Your task to perform on an android device: Do I have any events today? Image 0: 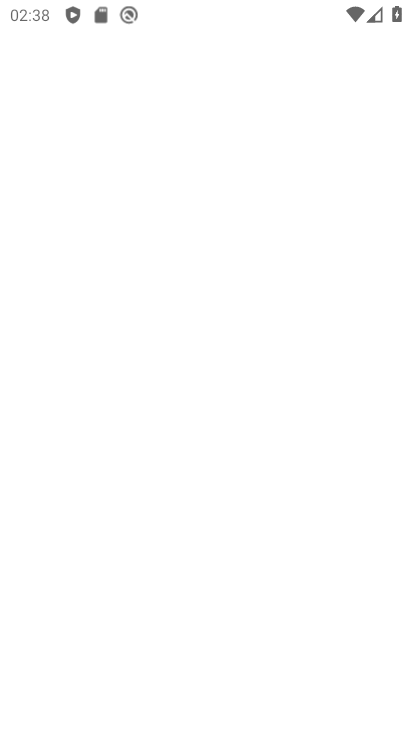
Step 0: press home button
Your task to perform on an android device: Do I have any events today? Image 1: 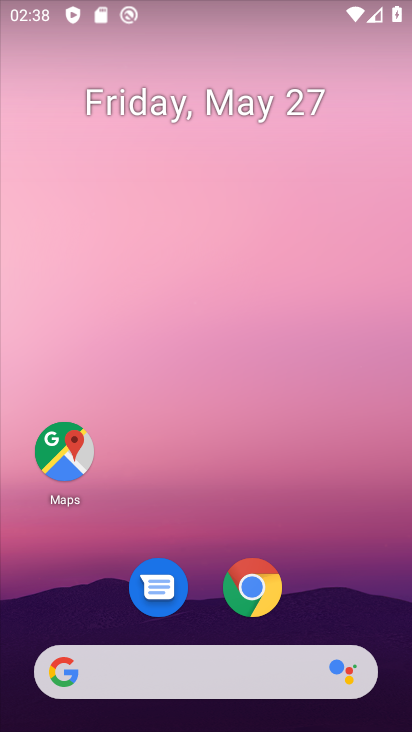
Step 1: drag from (323, 583) to (288, 198)
Your task to perform on an android device: Do I have any events today? Image 2: 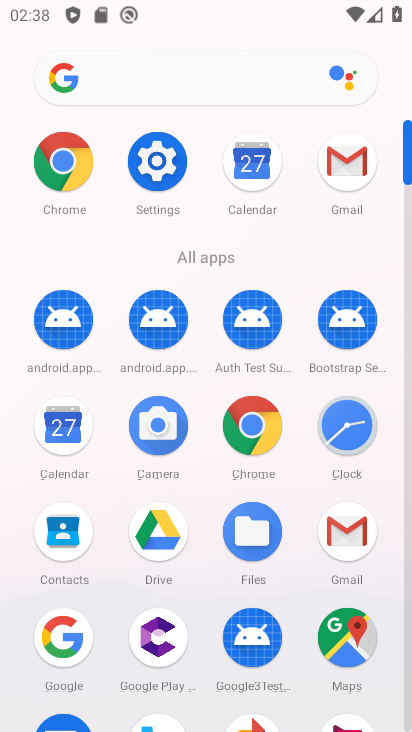
Step 2: click (74, 442)
Your task to perform on an android device: Do I have any events today? Image 3: 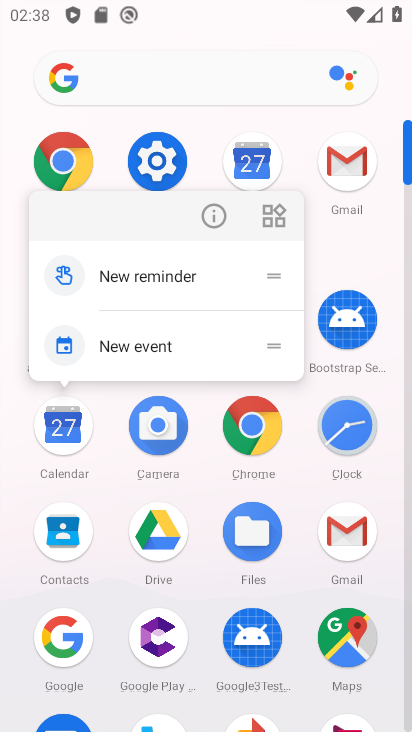
Step 3: click (76, 442)
Your task to perform on an android device: Do I have any events today? Image 4: 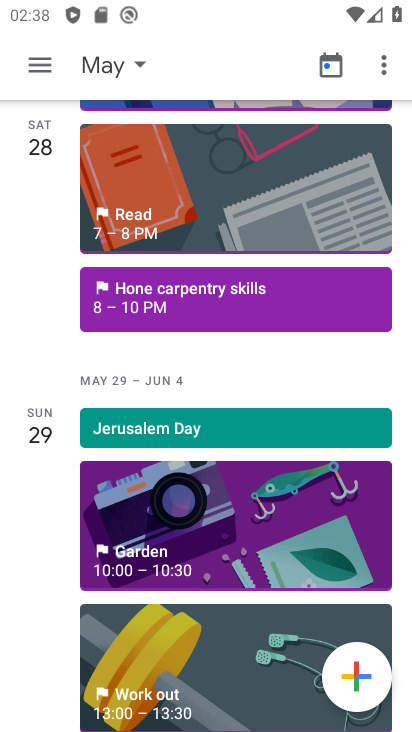
Step 4: task complete